Your task to perform on an android device: snooze an email in the gmail app Image 0: 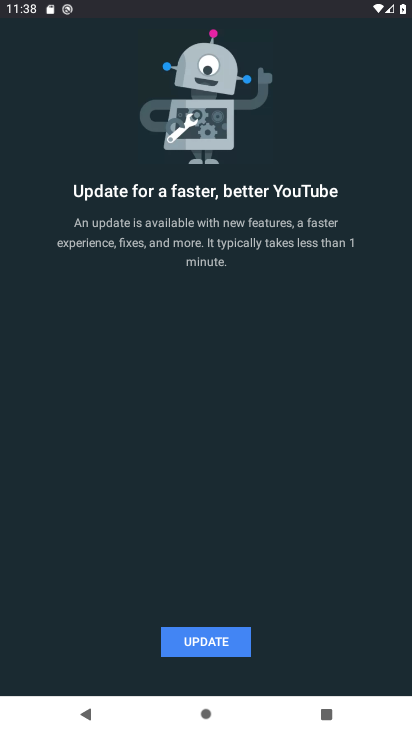
Step 0: press home button
Your task to perform on an android device: snooze an email in the gmail app Image 1: 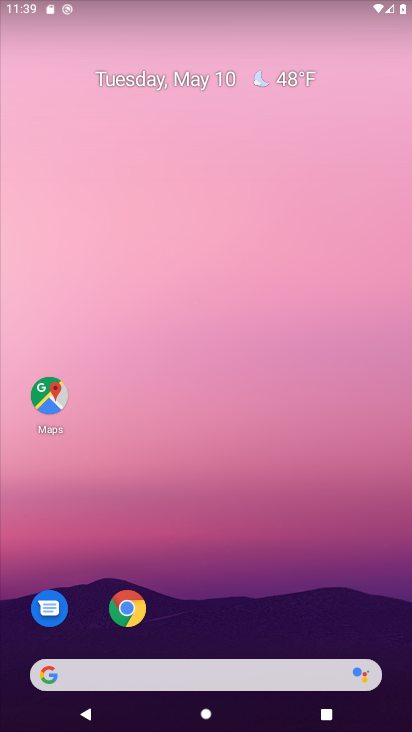
Step 1: drag from (222, 634) to (115, 248)
Your task to perform on an android device: snooze an email in the gmail app Image 2: 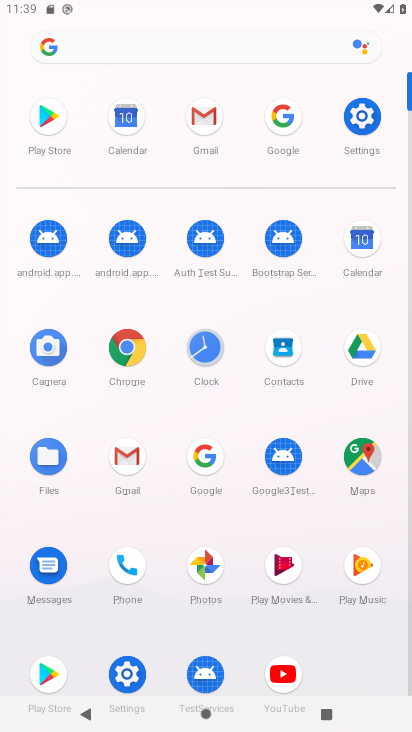
Step 2: click (196, 109)
Your task to perform on an android device: snooze an email in the gmail app Image 3: 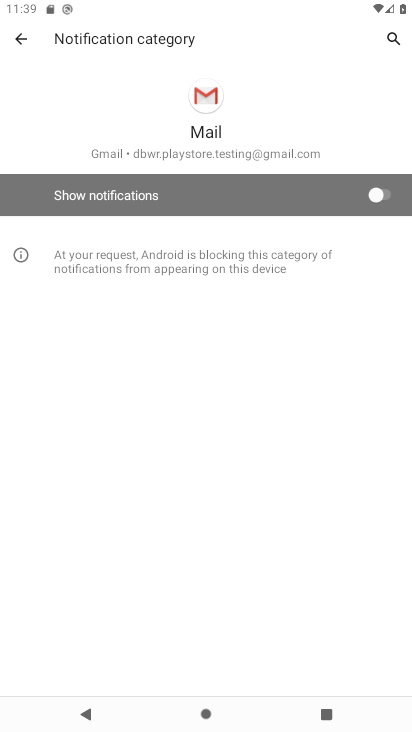
Step 3: task complete